Your task to perform on an android device: change text size in settings app Image 0: 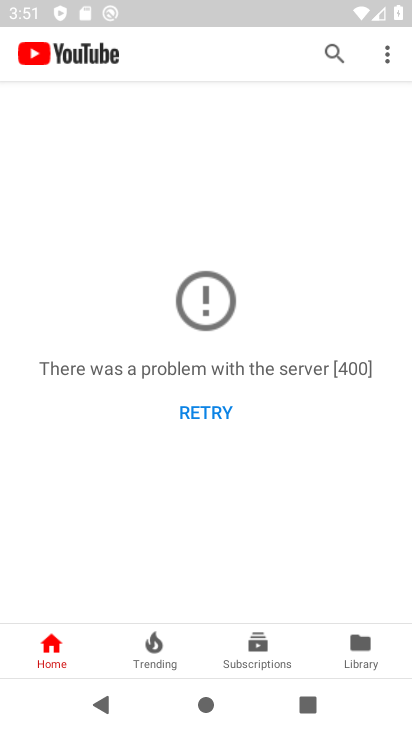
Step 0: drag from (273, 363) to (270, 228)
Your task to perform on an android device: change text size in settings app Image 1: 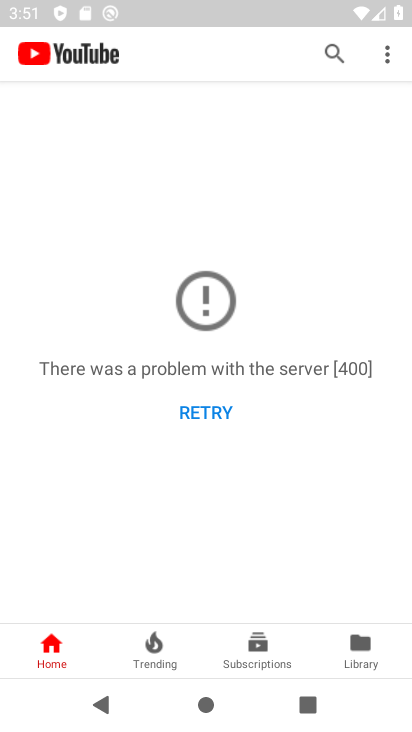
Step 1: press home button
Your task to perform on an android device: change text size in settings app Image 2: 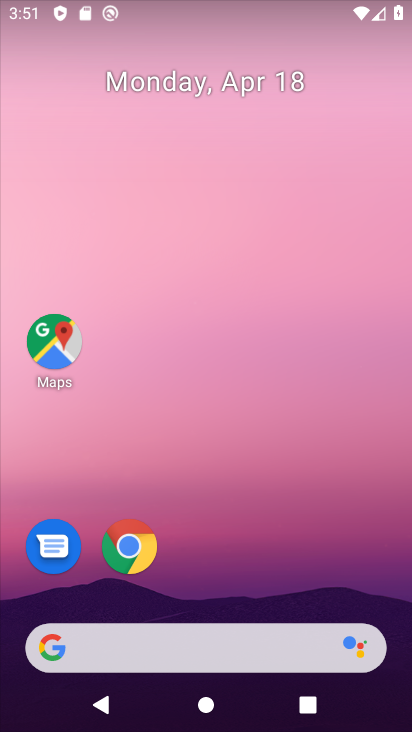
Step 2: drag from (213, 324) to (209, 235)
Your task to perform on an android device: change text size in settings app Image 3: 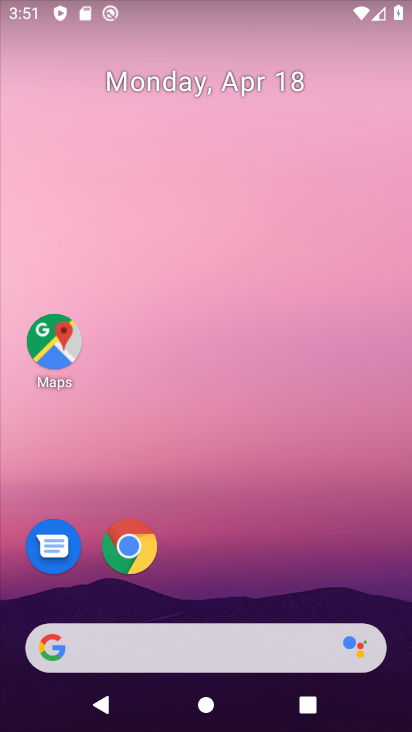
Step 3: drag from (249, 296) to (247, 255)
Your task to perform on an android device: change text size in settings app Image 4: 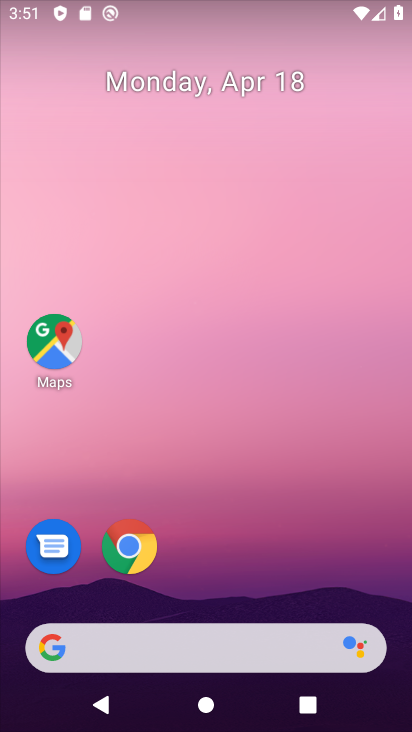
Step 4: drag from (224, 502) to (211, 288)
Your task to perform on an android device: change text size in settings app Image 5: 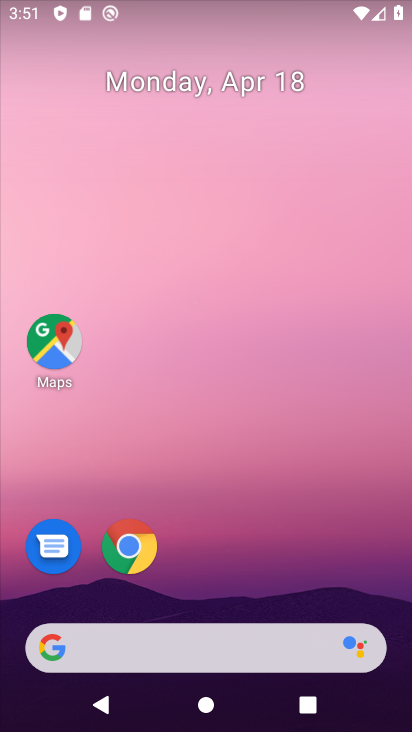
Step 5: drag from (234, 501) to (249, 217)
Your task to perform on an android device: change text size in settings app Image 6: 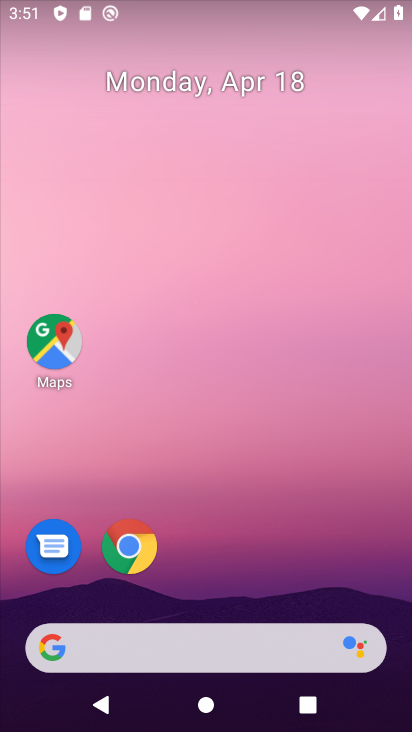
Step 6: drag from (241, 578) to (269, 242)
Your task to perform on an android device: change text size in settings app Image 7: 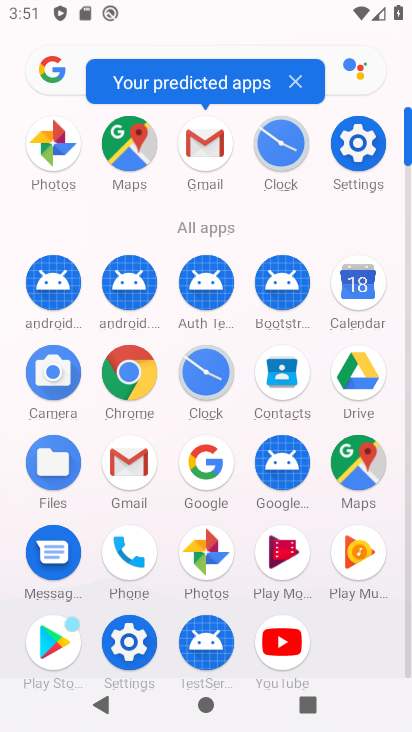
Step 7: click (348, 123)
Your task to perform on an android device: change text size in settings app Image 8: 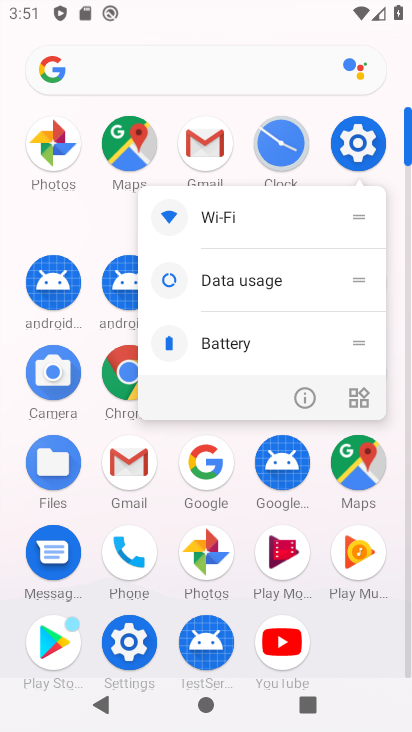
Step 8: click (348, 123)
Your task to perform on an android device: change text size in settings app Image 9: 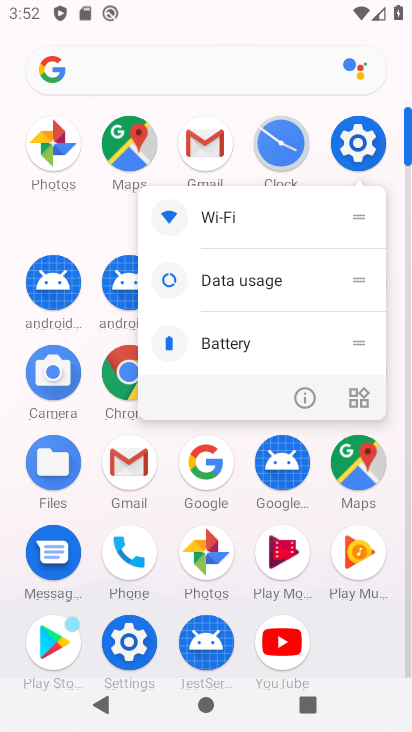
Step 9: click (355, 128)
Your task to perform on an android device: change text size in settings app Image 10: 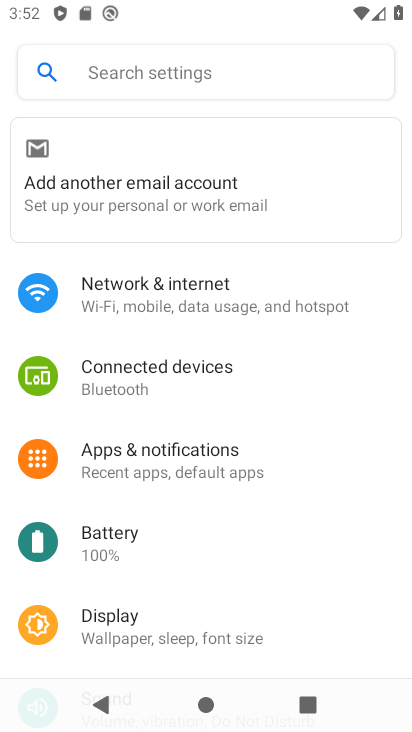
Step 10: drag from (251, 619) to (277, 163)
Your task to perform on an android device: change text size in settings app Image 11: 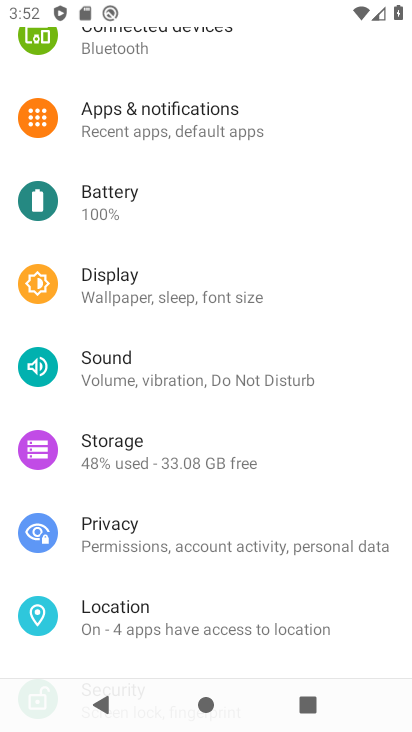
Step 11: drag from (279, 580) to (237, 150)
Your task to perform on an android device: change text size in settings app Image 12: 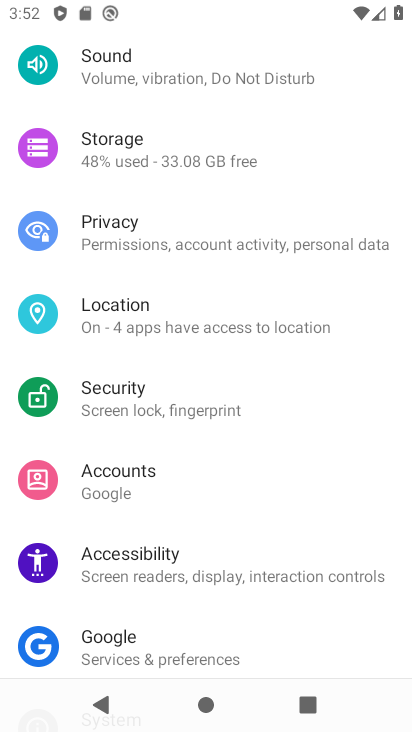
Step 12: drag from (257, 404) to (254, 142)
Your task to perform on an android device: change text size in settings app Image 13: 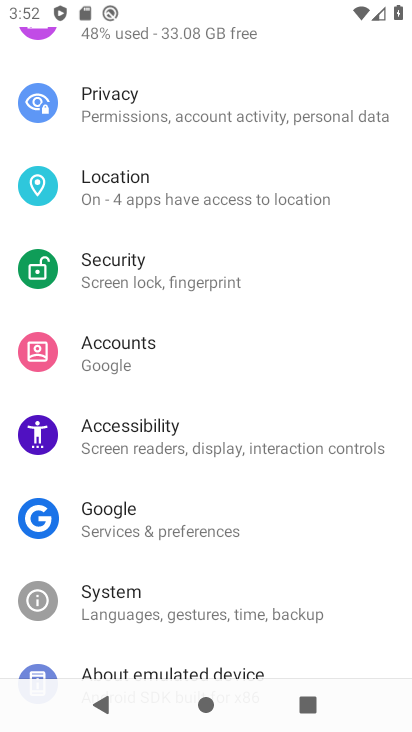
Step 13: drag from (312, 393) to (248, 366)
Your task to perform on an android device: change text size in settings app Image 14: 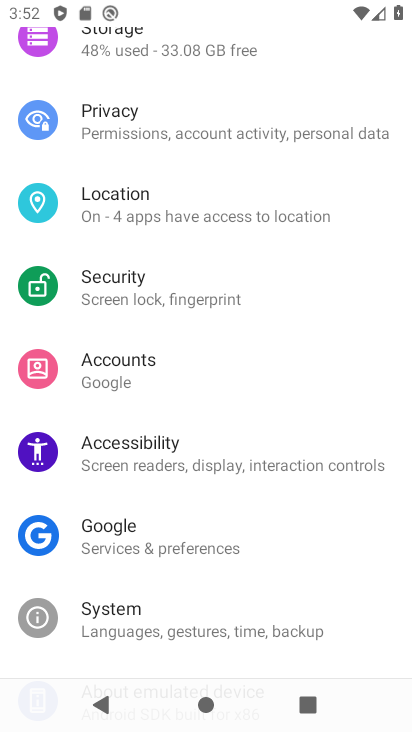
Step 14: click (212, 603)
Your task to perform on an android device: change text size in settings app Image 15: 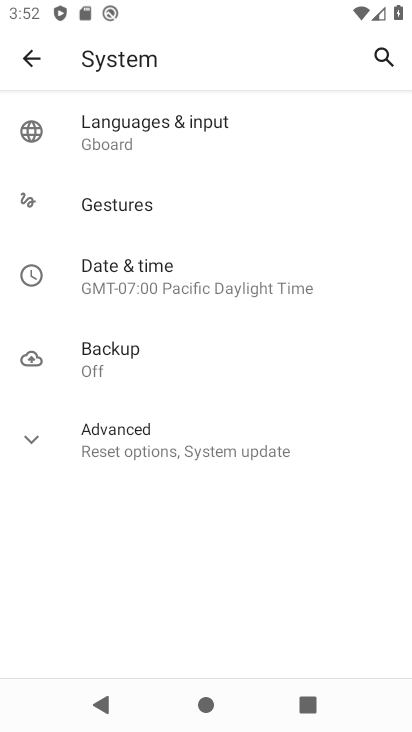
Step 15: click (22, 51)
Your task to perform on an android device: change text size in settings app Image 16: 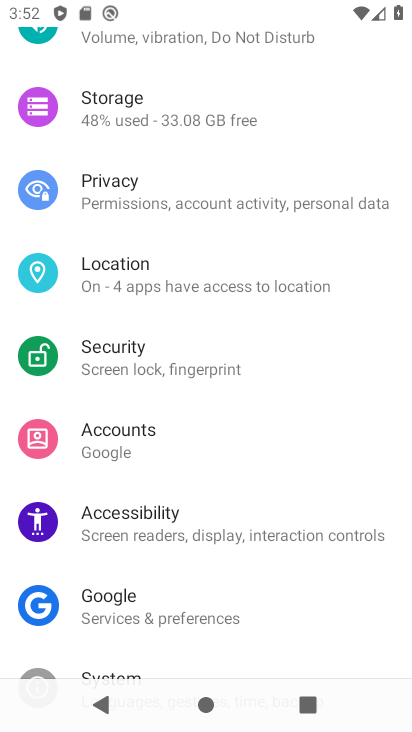
Step 16: drag from (267, 562) to (284, 298)
Your task to perform on an android device: change text size in settings app Image 17: 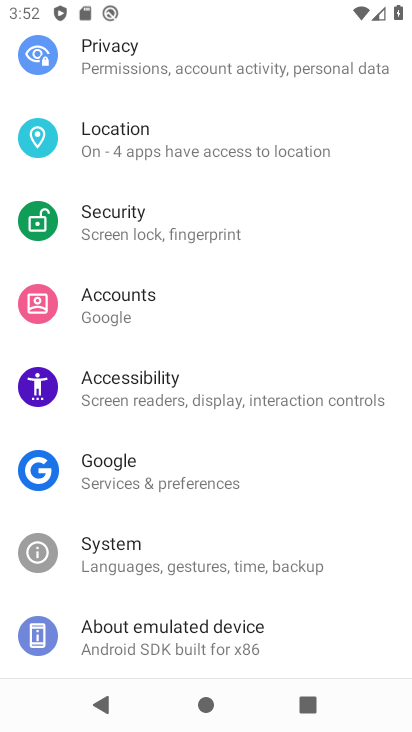
Step 17: drag from (201, 571) to (255, 227)
Your task to perform on an android device: change text size in settings app Image 18: 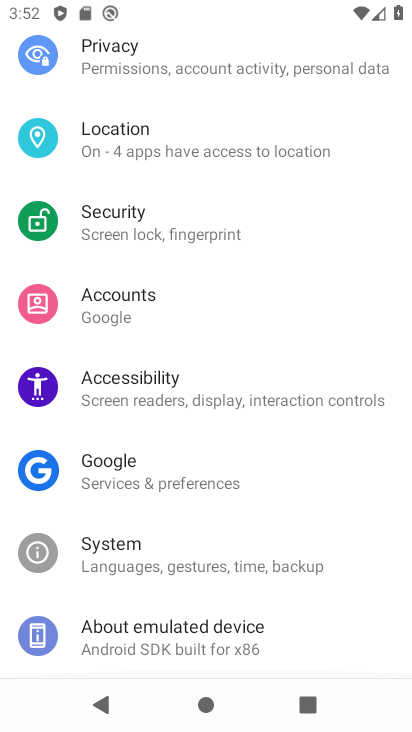
Step 18: click (208, 368)
Your task to perform on an android device: change text size in settings app Image 19: 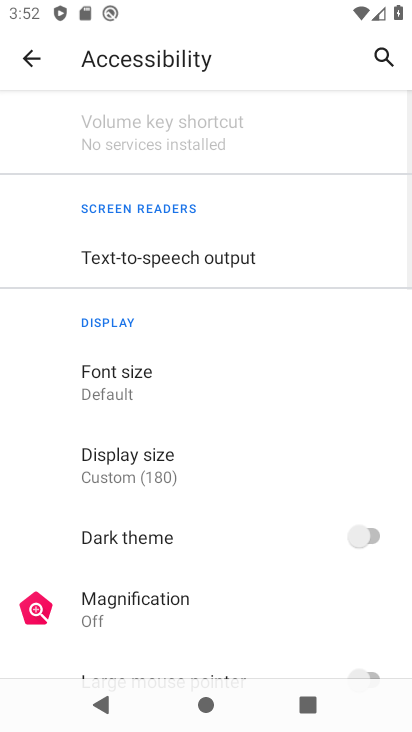
Step 19: click (157, 377)
Your task to perform on an android device: change text size in settings app Image 20: 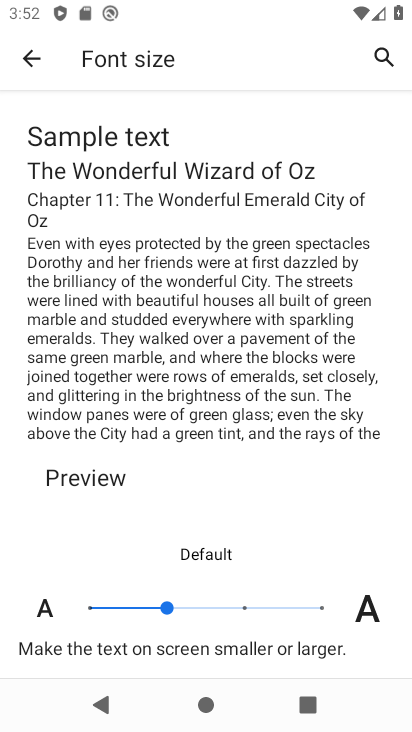
Step 20: click (247, 610)
Your task to perform on an android device: change text size in settings app Image 21: 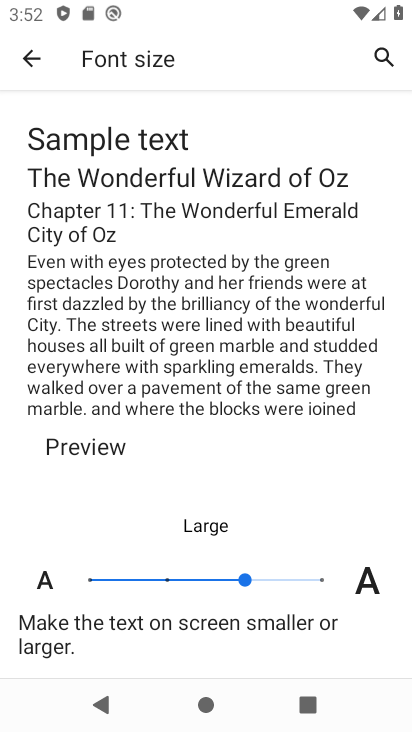
Step 21: task complete